Your task to perform on an android device: Open Chrome and go to settings Image 0: 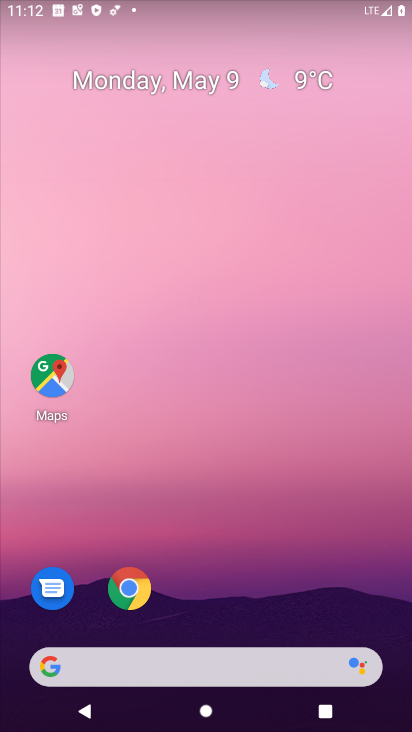
Step 0: press home button
Your task to perform on an android device: Open Chrome and go to settings Image 1: 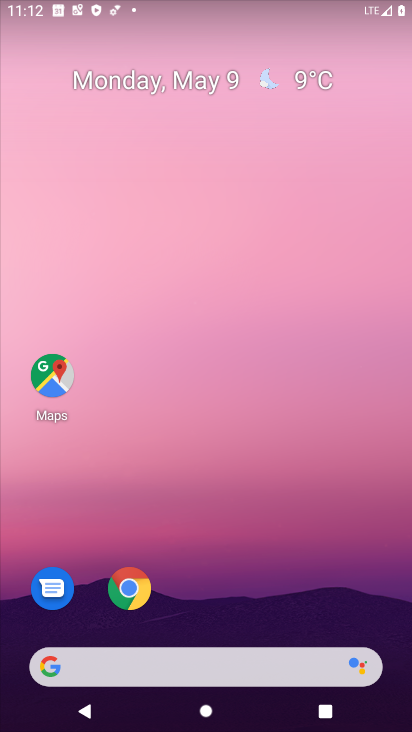
Step 1: drag from (176, 671) to (314, 196)
Your task to perform on an android device: Open Chrome and go to settings Image 2: 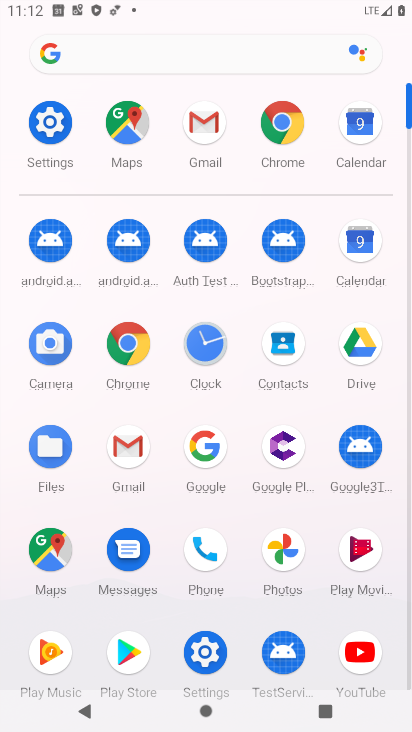
Step 2: click (287, 134)
Your task to perform on an android device: Open Chrome and go to settings Image 3: 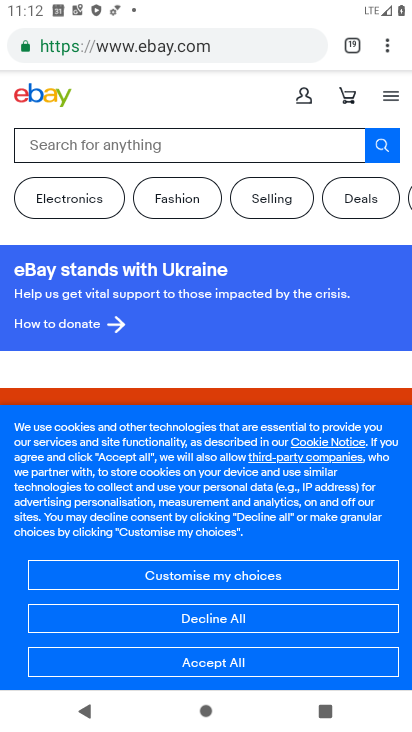
Step 3: task complete